Your task to perform on an android device: change notification settings in the gmail app Image 0: 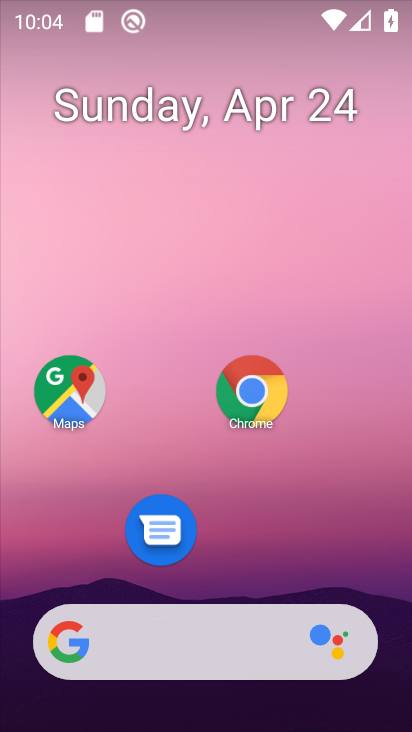
Step 0: drag from (257, 552) to (262, 115)
Your task to perform on an android device: change notification settings in the gmail app Image 1: 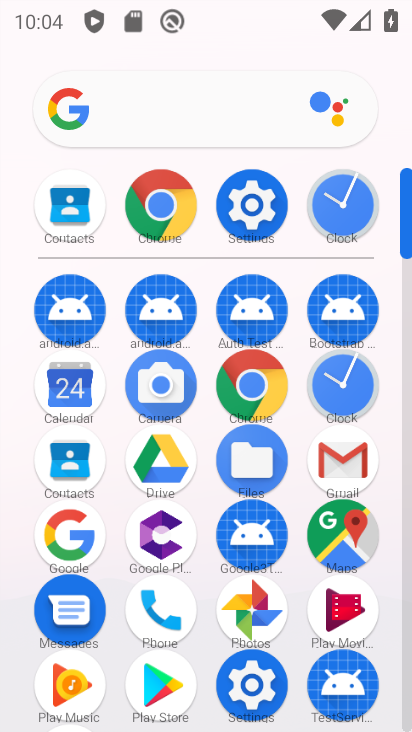
Step 1: click (358, 462)
Your task to perform on an android device: change notification settings in the gmail app Image 2: 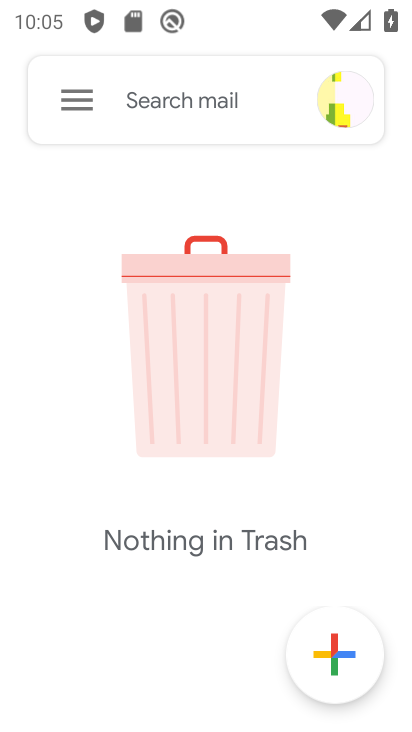
Step 2: click (100, 98)
Your task to perform on an android device: change notification settings in the gmail app Image 3: 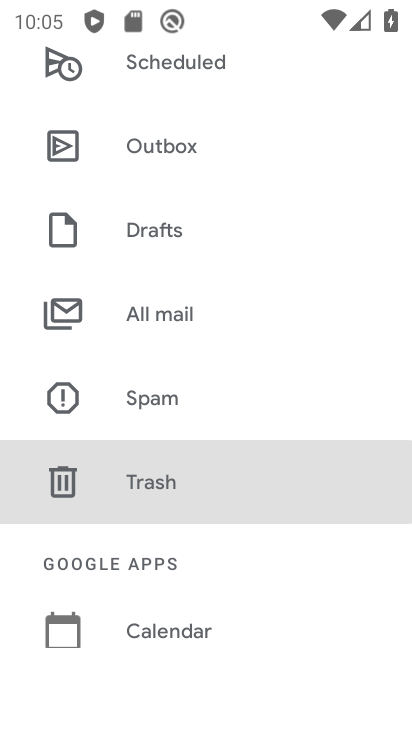
Step 3: drag from (160, 604) to (211, 111)
Your task to perform on an android device: change notification settings in the gmail app Image 4: 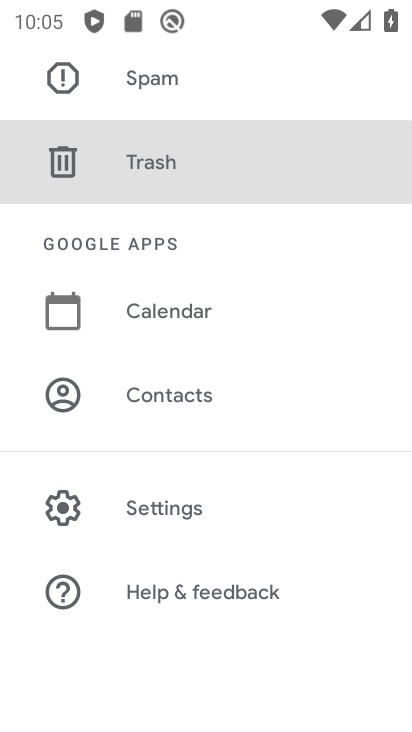
Step 4: click (148, 512)
Your task to perform on an android device: change notification settings in the gmail app Image 5: 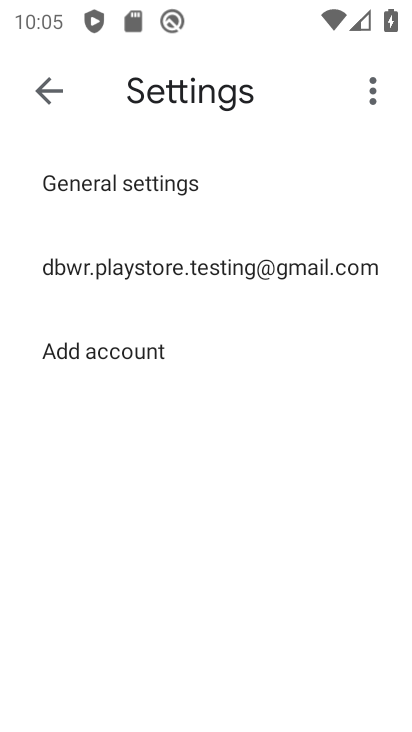
Step 5: click (224, 289)
Your task to perform on an android device: change notification settings in the gmail app Image 6: 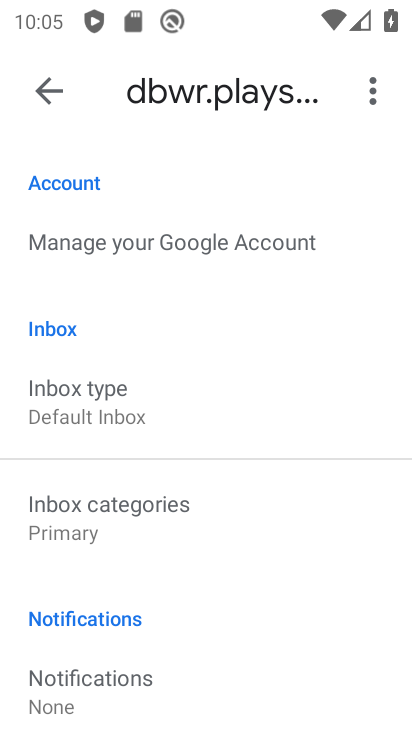
Step 6: click (94, 719)
Your task to perform on an android device: change notification settings in the gmail app Image 7: 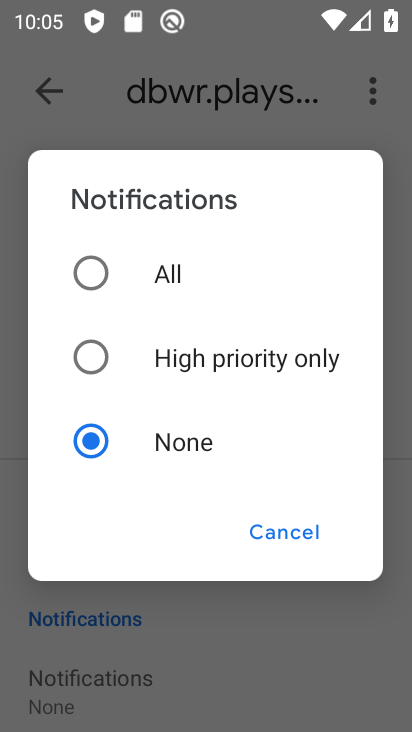
Step 7: click (153, 286)
Your task to perform on an android device: change notification settings in the gmail app Image 8: 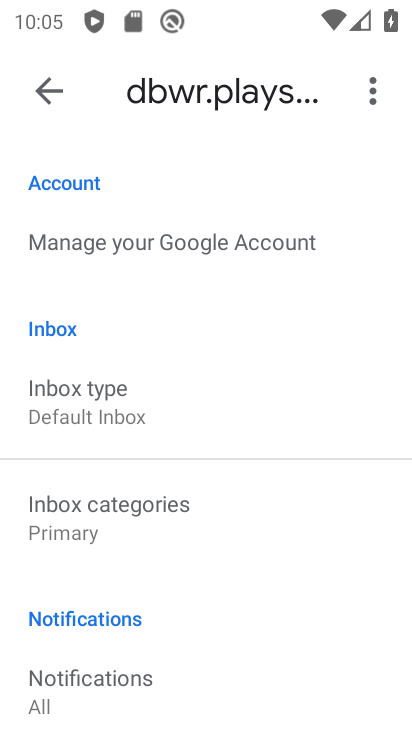
Step 8: task complete